Your task to perform on an android device: Set the phone to "Do not disturb". Image 0: 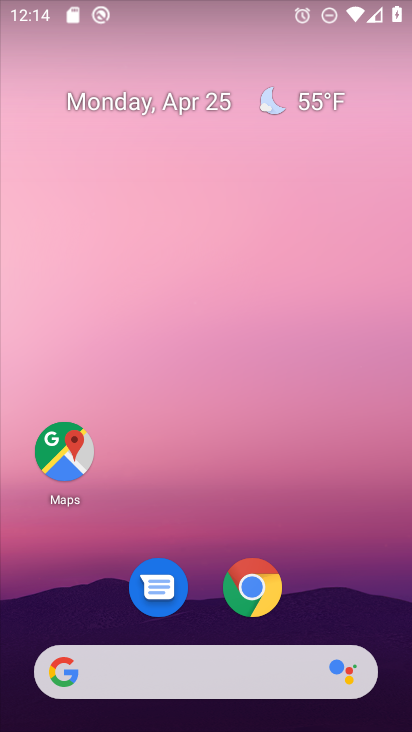
Step 0: drag from (210, 16) to (242, 361)
Your task to perform on an android device: Set the phone to "Do not disturb". Image 1: 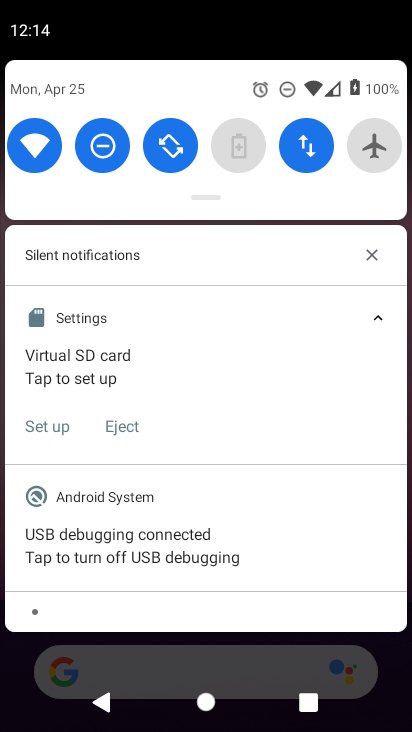
Step 1: task complete